Your task to perform on an android device: What's the weather going to be tomorrow? Image 0: 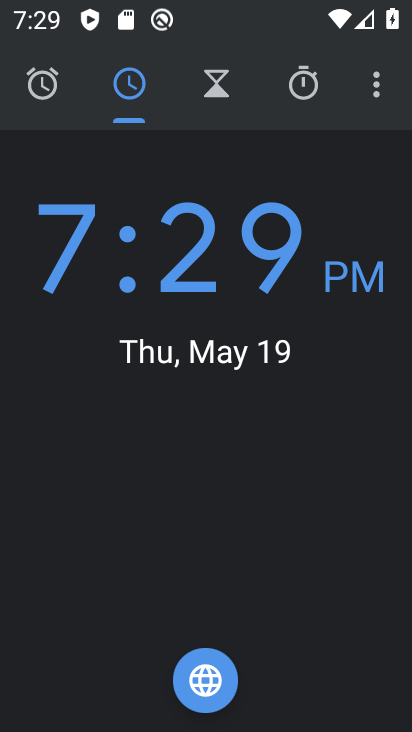
Step 0: press back button
Your task to perform on an android device: What's the weather going to be tomorrow? Image 1: 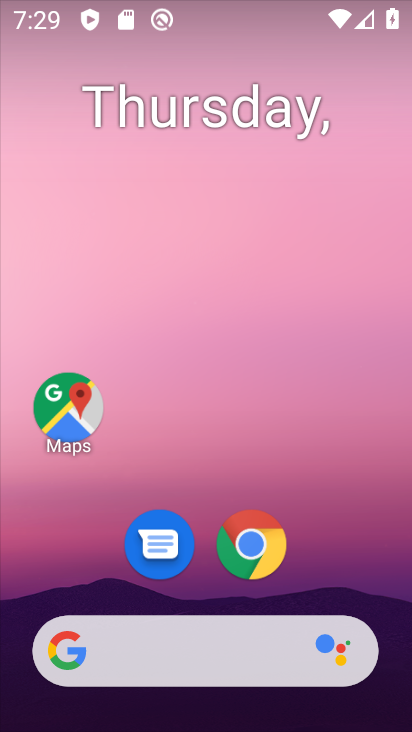
Step 1: drag from (318, 573) to (247, 92)
Your task to perform on an android device: What's the weather going to be tomorrow? Image 2: 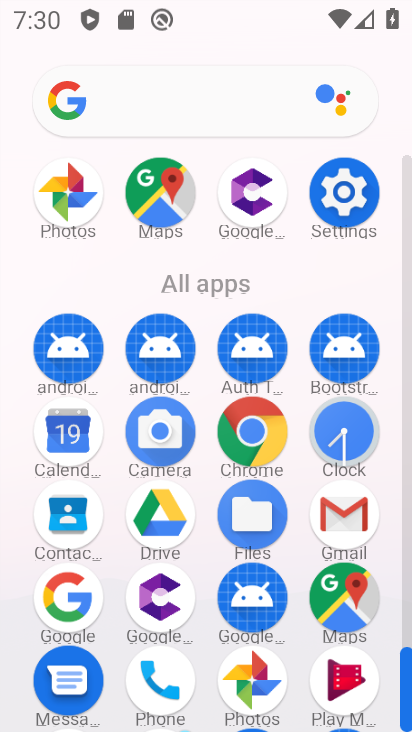
Step 2: click (62, 597)
Your task to perform on an android device: What's the weather going to be tomorrow? Image 3: 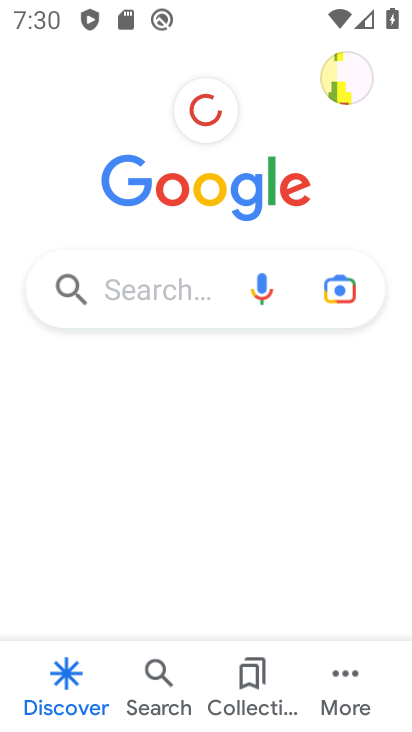
Step 3: click (168, 295)
Your task to perform on an android device: What's the weather going to be tomorrow? Image 4: 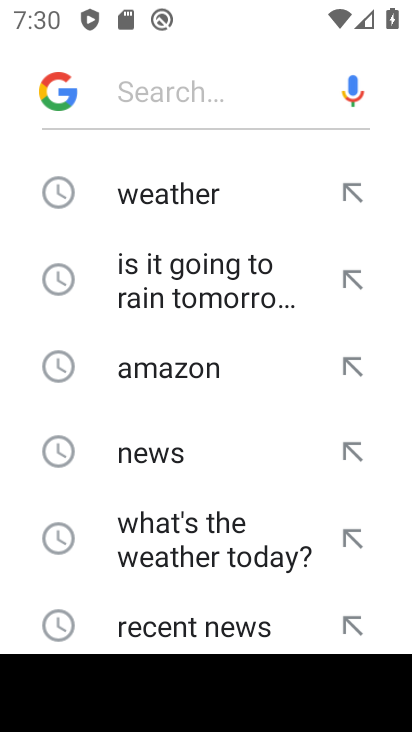
Step 4: type "What's the weather going to be tomorrow?"
Your task to perform on an android device: What's the weather going to be tomorrow? Image 5: 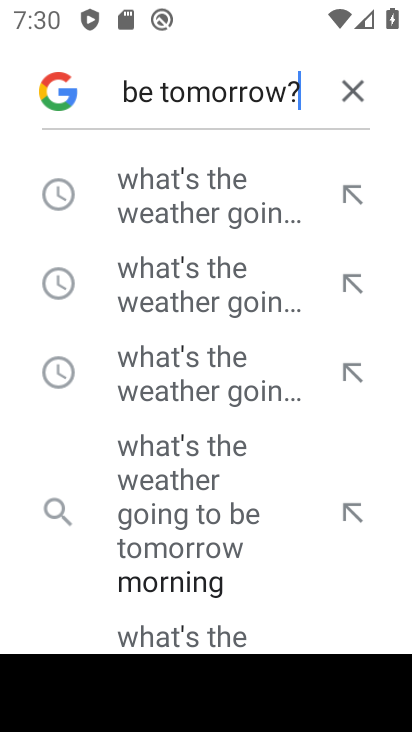
Step 5: type ""
Your task to perform on an android device: What's the weather going to be tomorrow? Image 6: 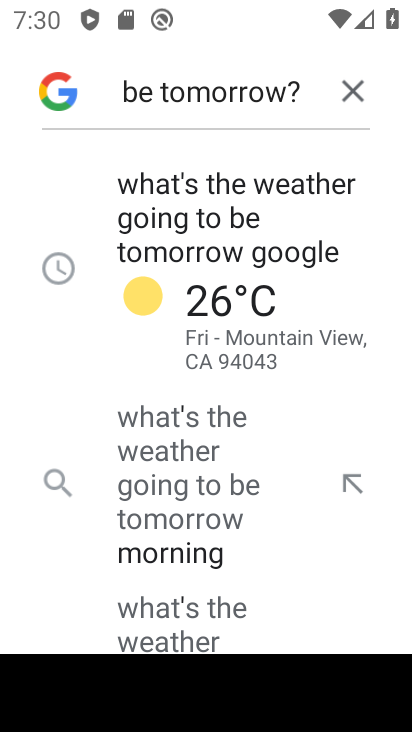
Step 6: click (231, 232)
Your task to perform on an android device: What's the weather going to be tomorrow? Image 7: 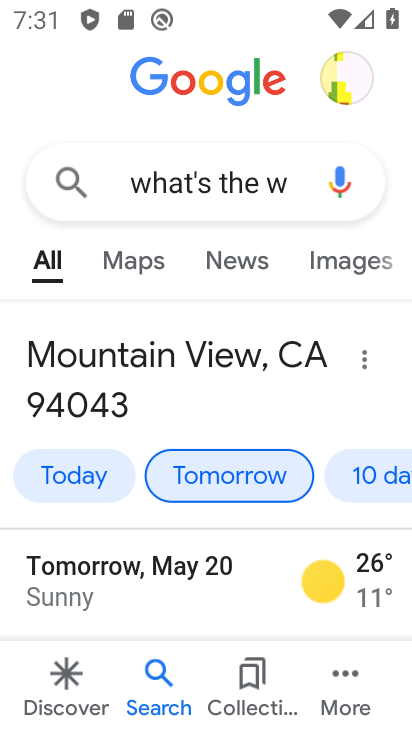
Step 7: task complete